Your task to perform on an android device: set the timer Image 0: 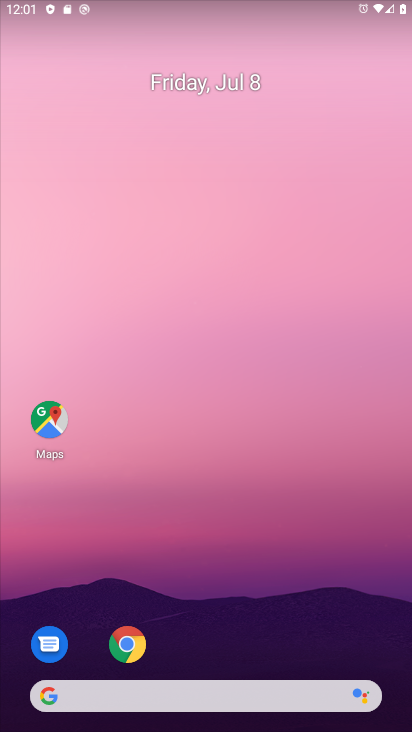
Step 0: drag from (217, 618) to (173, 11)
Your task to perform on an android device: set the timer Image 1: 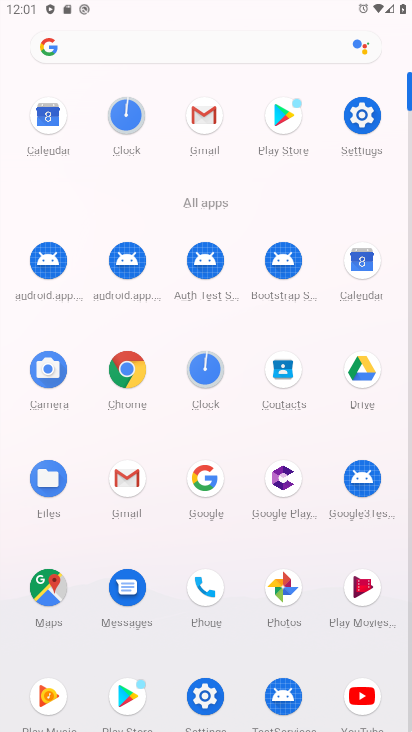
Step 1: click (215, 396)
Your task to perform on an android device: set the timer Image 2: 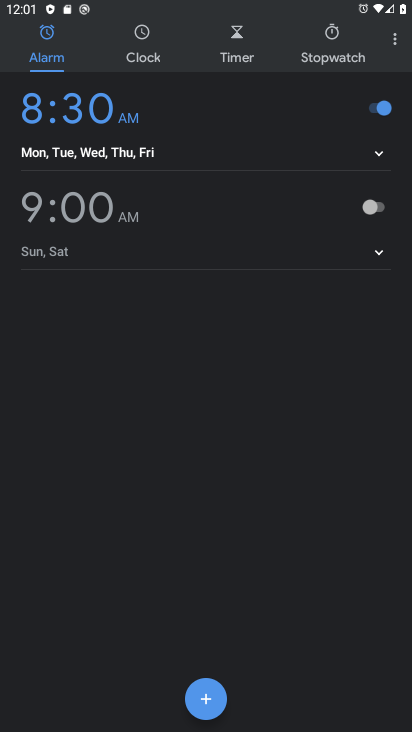
Step 2: click (236, 47)
Your task to perform on an android device: set the timer Image 3: 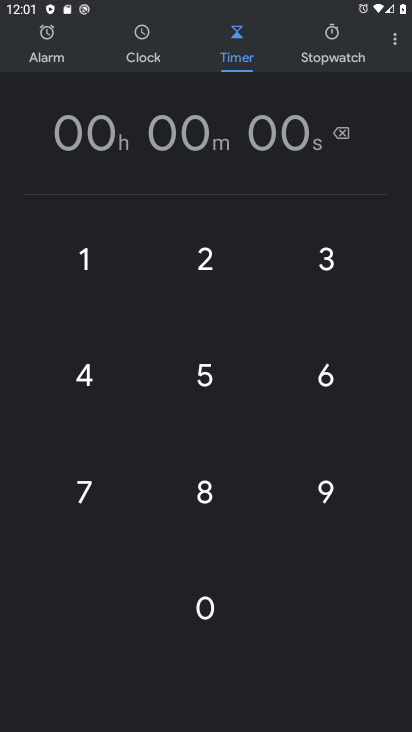
Step 3: click (207, 504)
Your task to perform on an android device: set the timer Image 4: 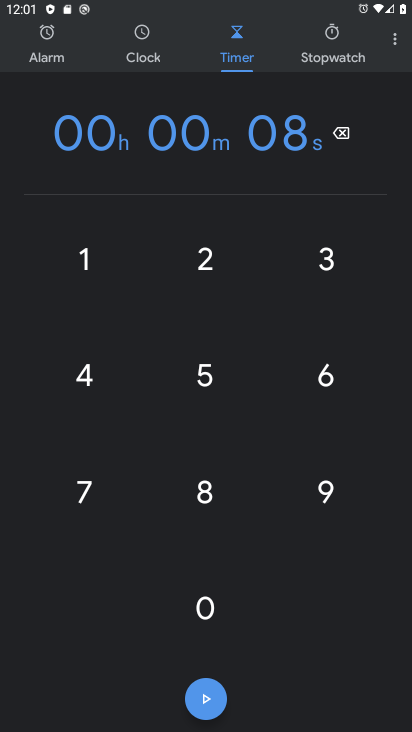
Step 4: click (210, 398)
Your task to perform on an android device: set the timer Image 5: 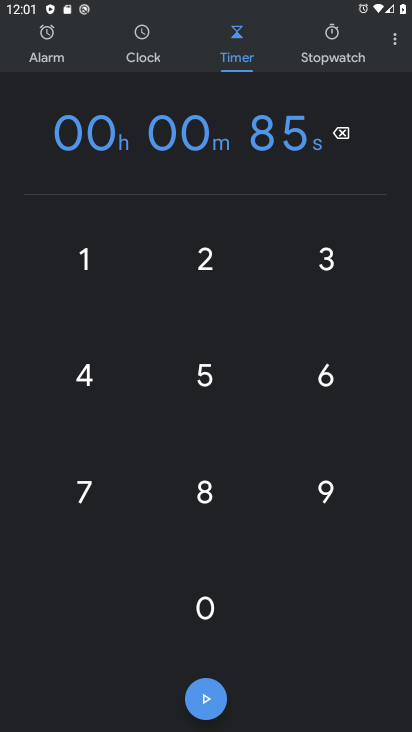
Step 5: click (82, 490)
Your task to perform on an android device: set the timer Image 6: 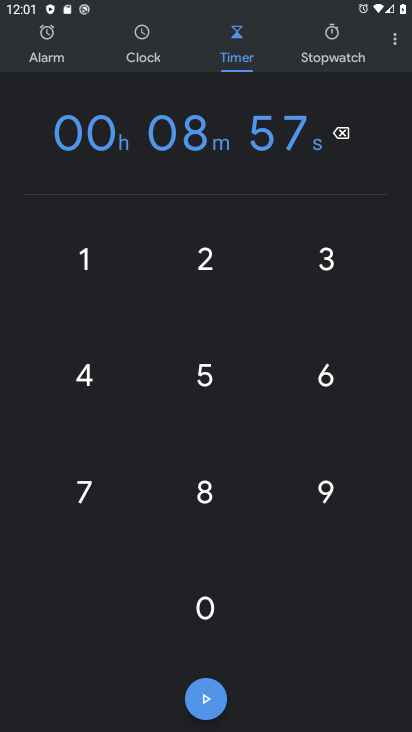
Step 6: click (215, 702)
Your task to perform on an android device: set the timer Image 7: 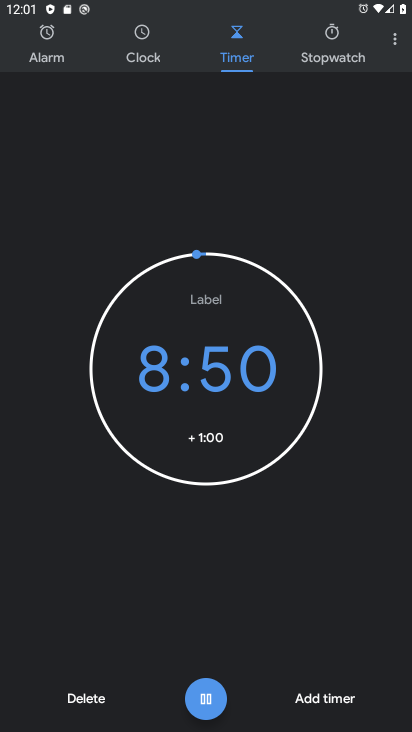
Step 7: task complete